Your task to perform on an android device: change keyboard looks Image 0: 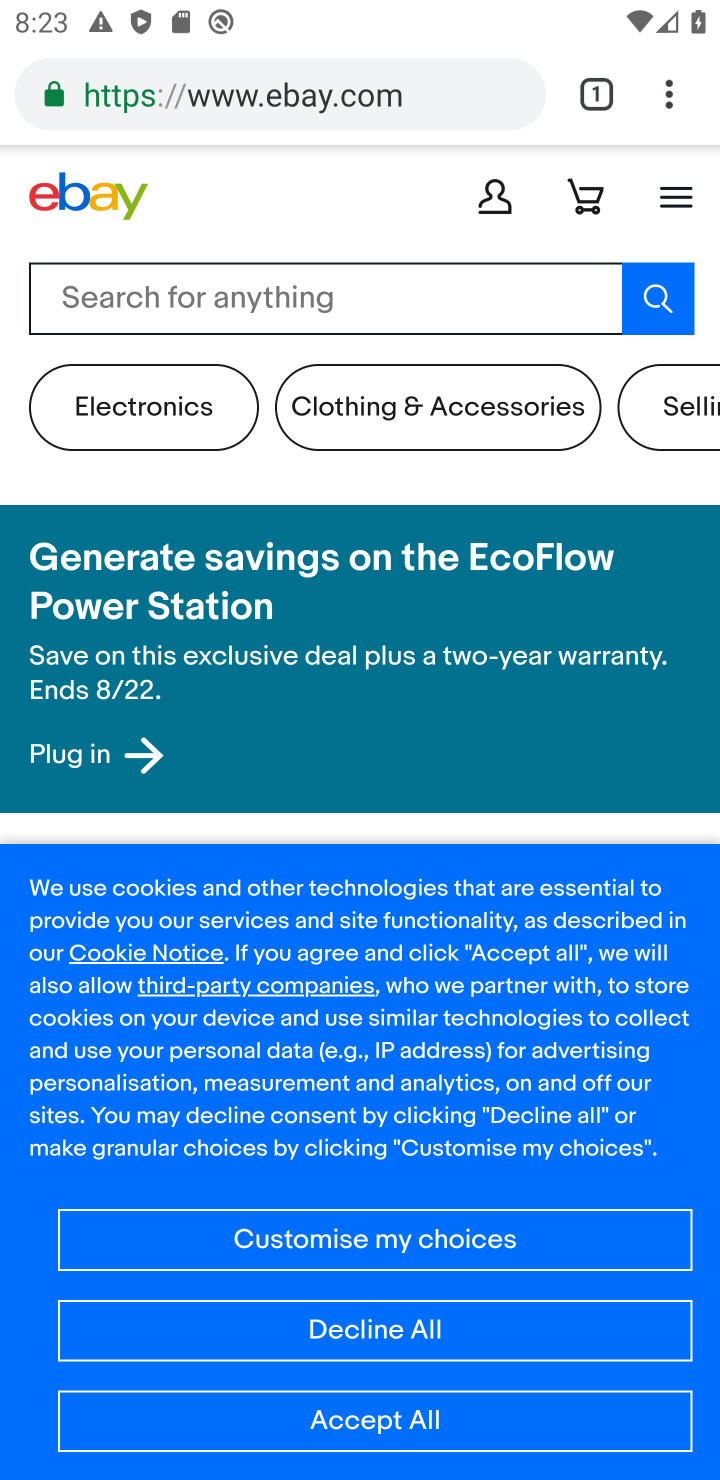
Step 0: press home button
Your task to perform on an android device: change keyboard looks Image 1: 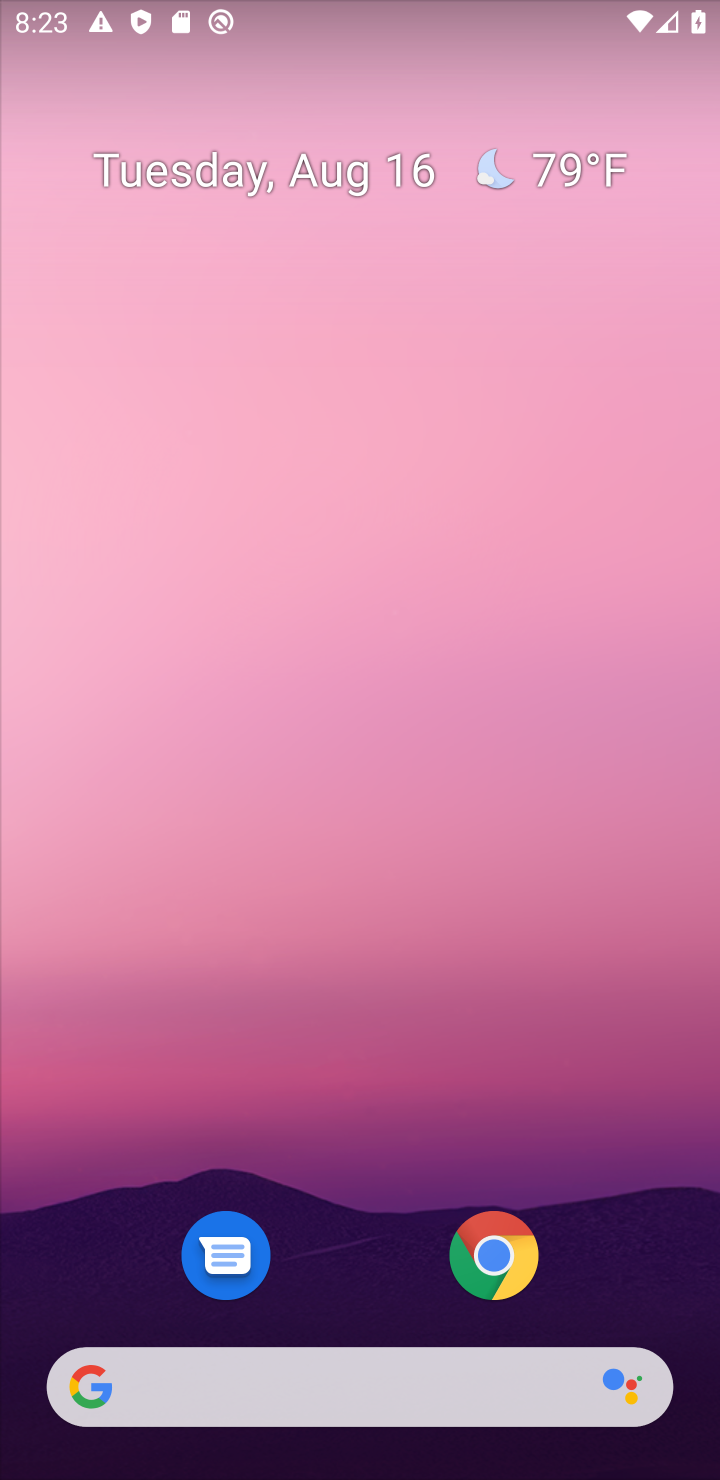
Step 1: drag from (391, 1388) to (442, 458)
Your task to perform on an android device: change keyboard looks Image 2: 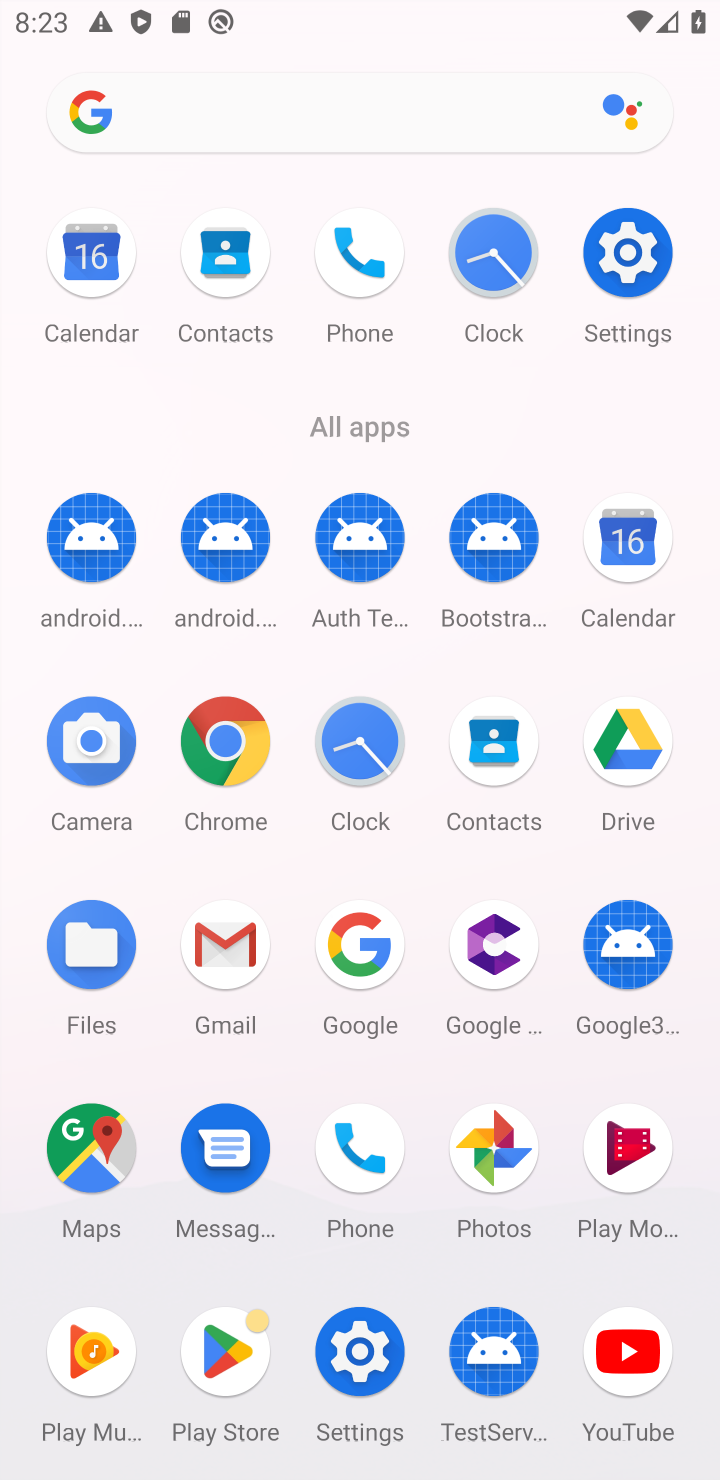
Step 2: click (634, 270)
Your task to perform on an android device: change keyboard looks Image 3: 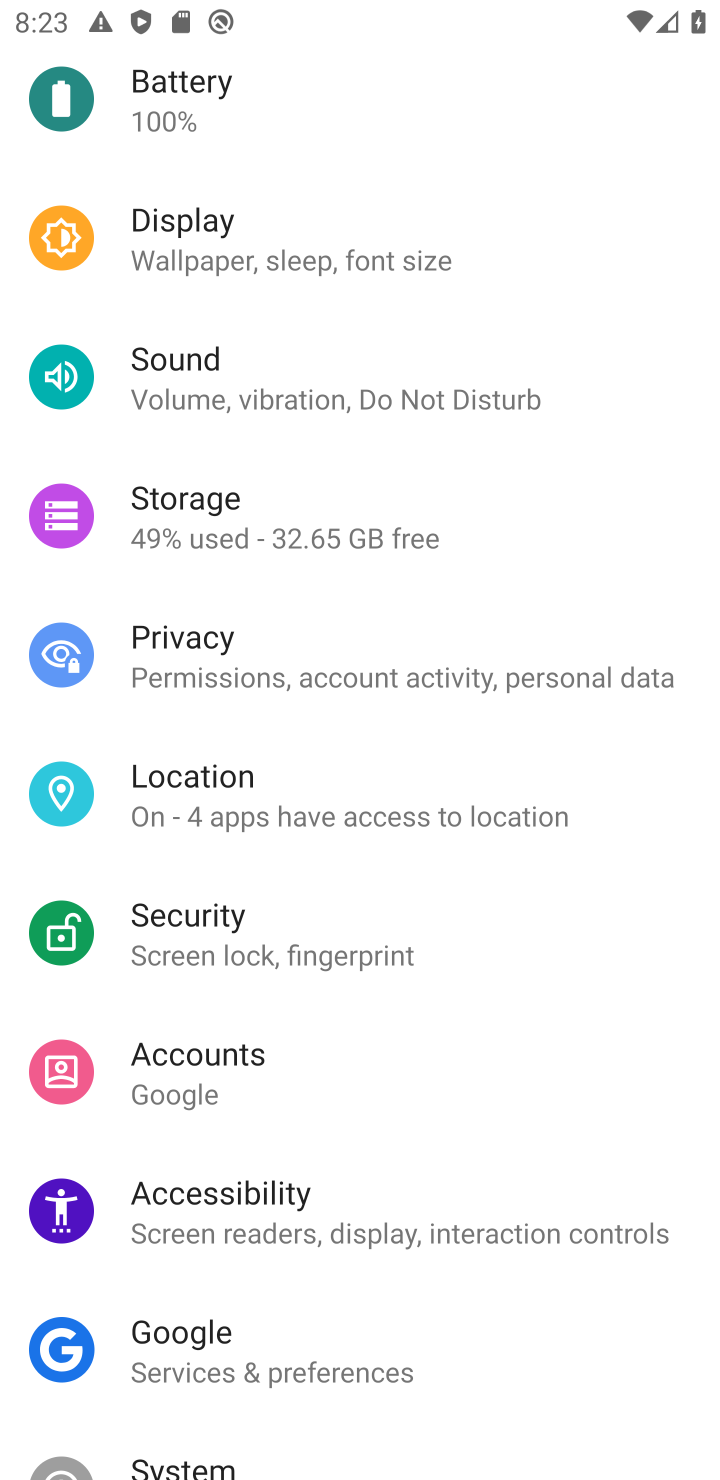
Step 3: drag from (364, 1361) to (411, 592)
Your task to perform on an android device: change keyboard looks Image 4: 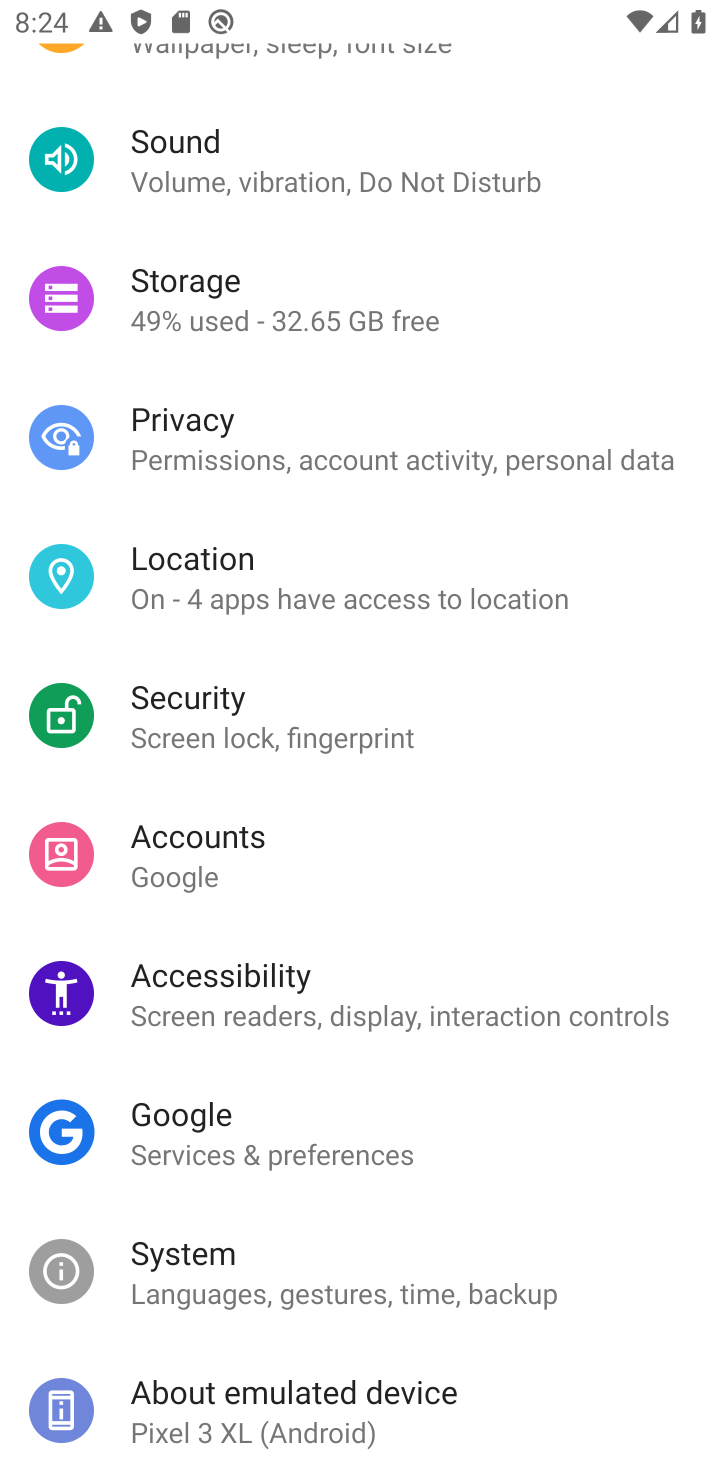
Step 4: click (273, 1264)
Your task to perform on an android device: change keyboard looks Image 5: 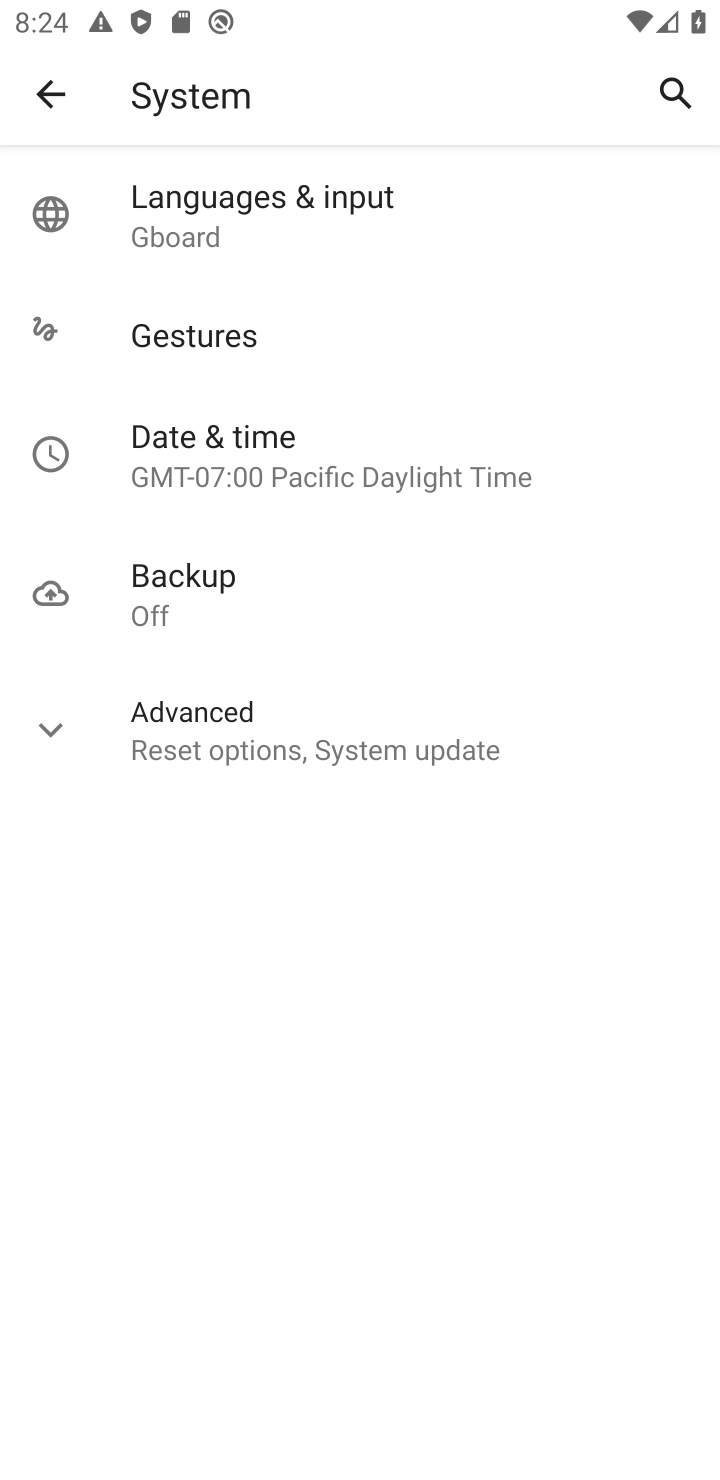
Step 5: click (275, 229)
Your task to perform on an android device: change keyboard looks Image 6: 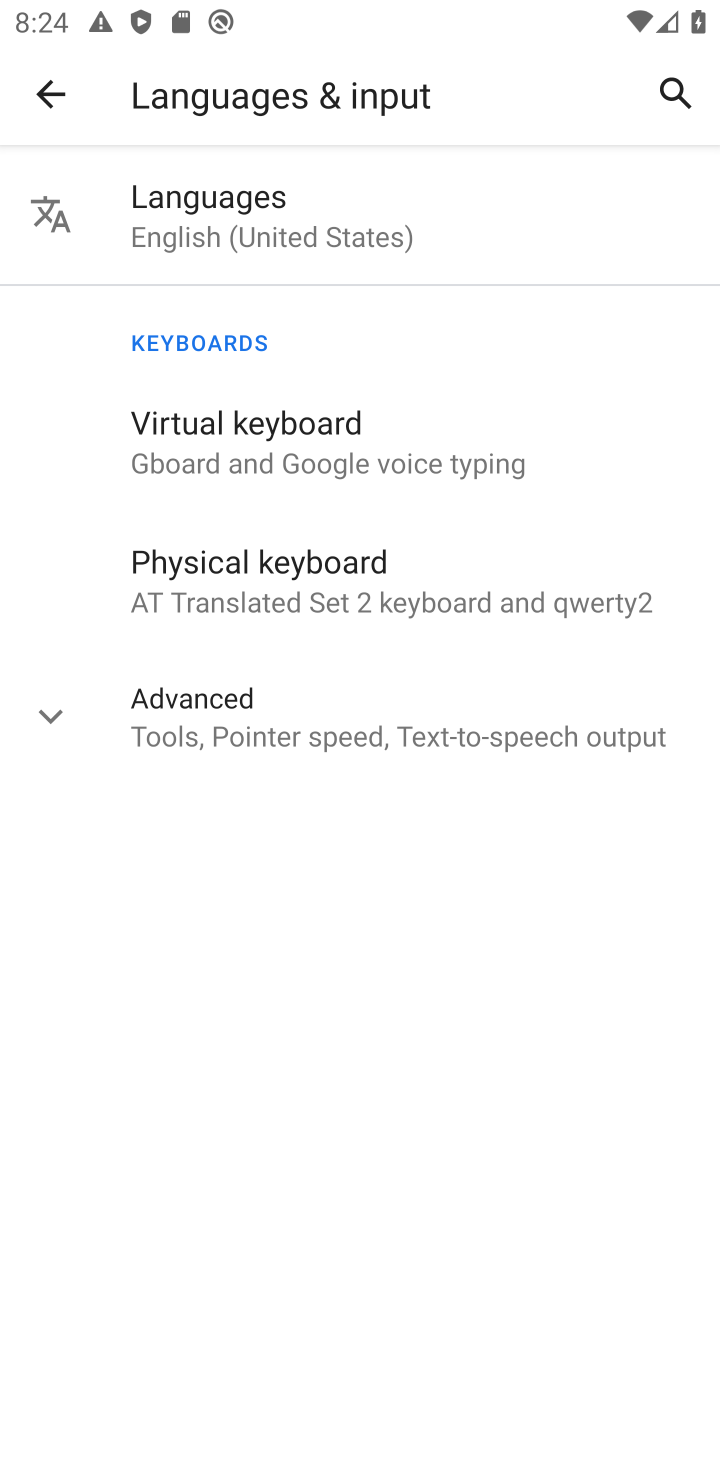
Step 6: click (251, 426)
Your task to perform on an android device: change keyboard looks Image 7: 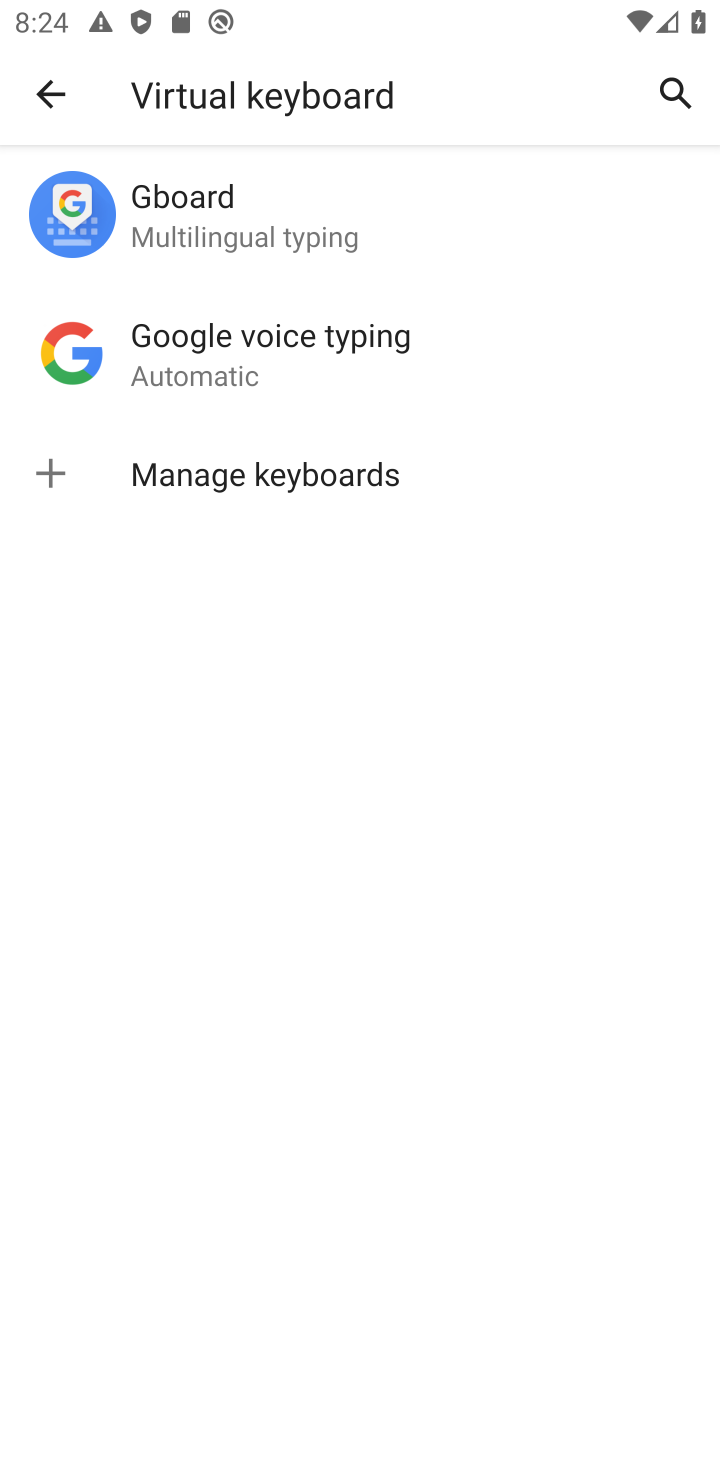
Step 7: click (196, 244)
Your task to perform on an android device: change keyboard looks Image 8: 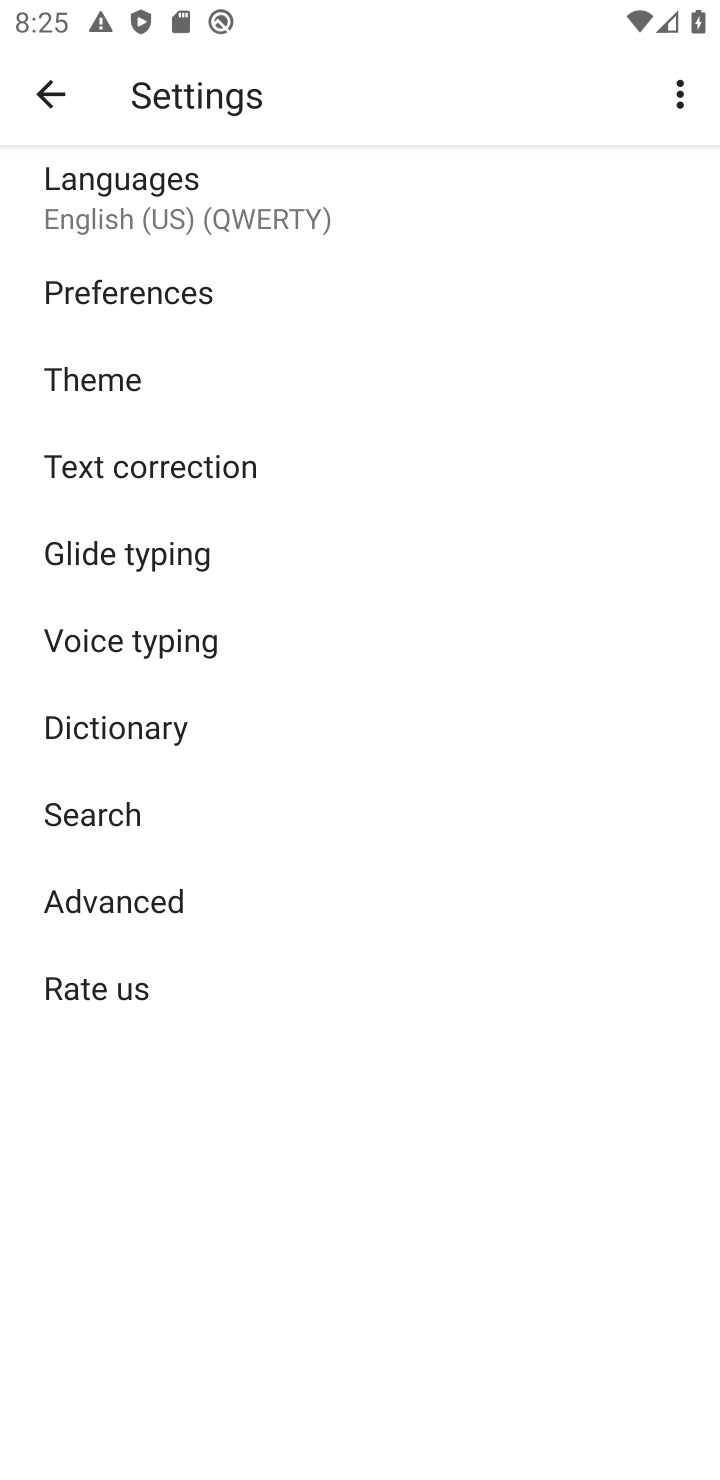
Step 8: click (95, 383)
Your task to perform on an android device: change keyboard looks Image 9: 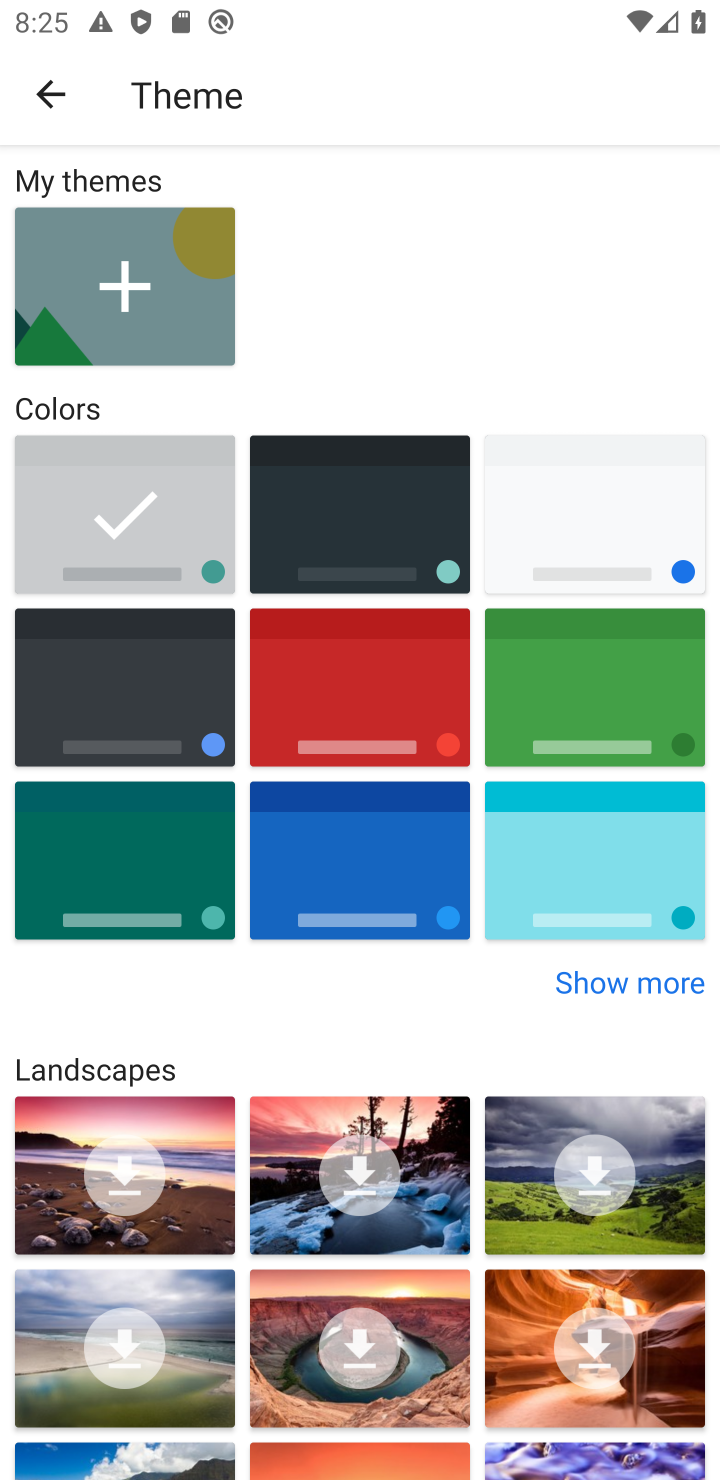
Step 9: click (144, 885)
Your task to perform on an android device: change keyboard looks Image 10: 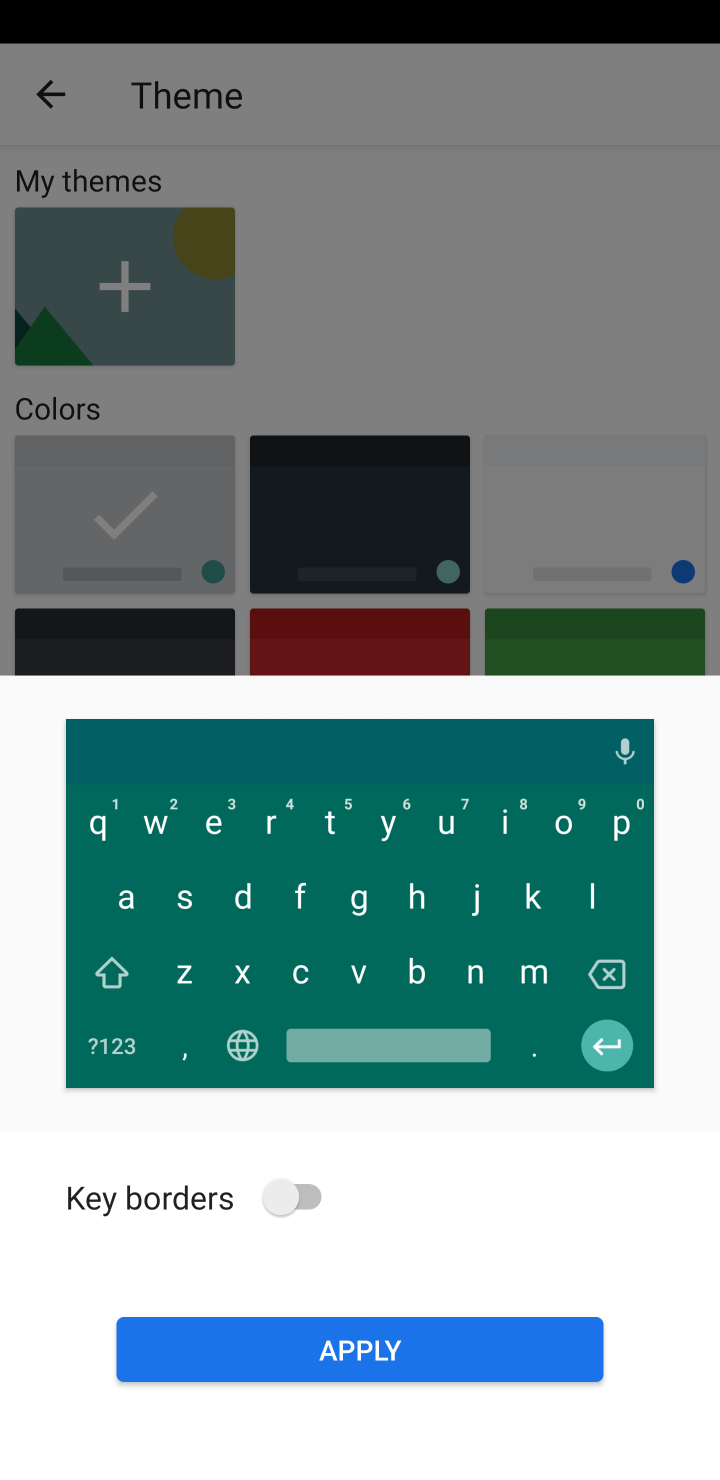
Step 10: click (283, 1198)
Your task to perform on an android device: change keyboard looks Image 11: 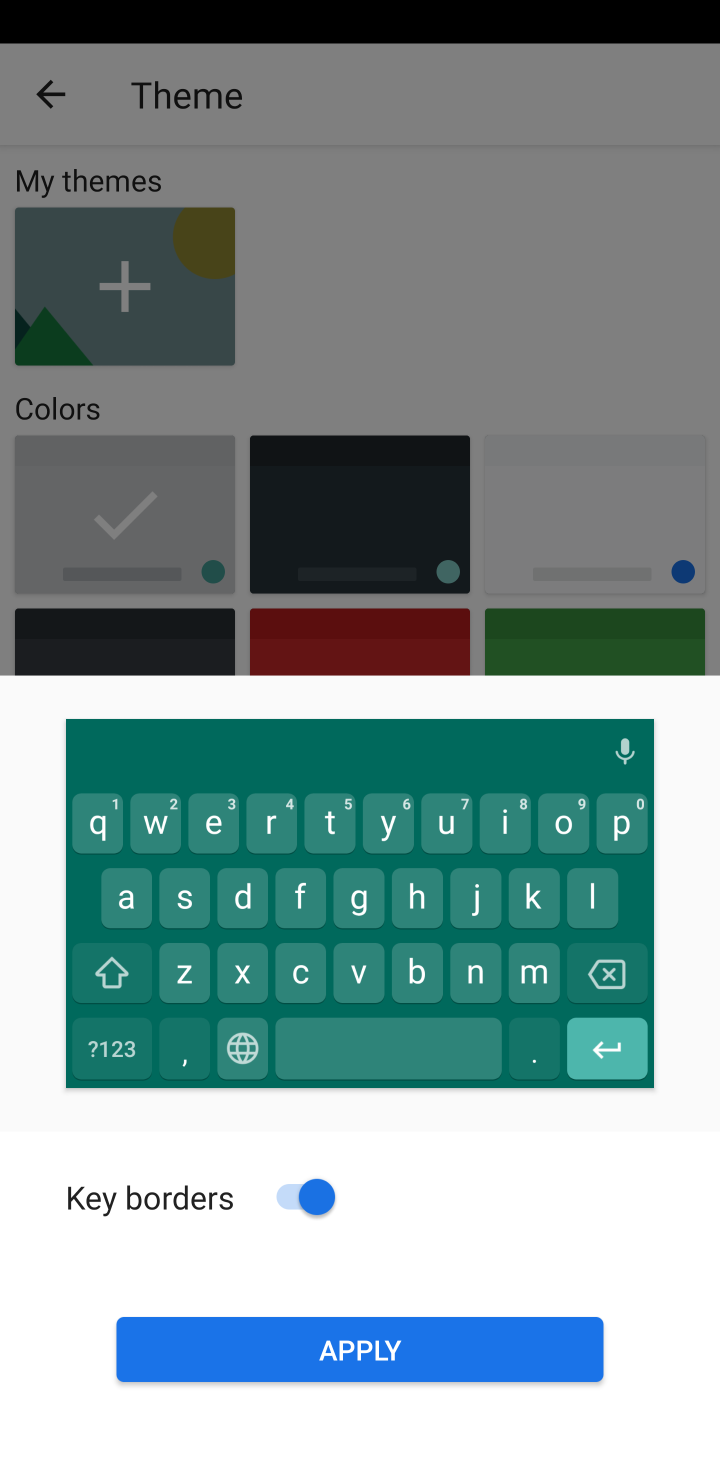
Step 11: click (350, 1340)
Your task to perform on an android device: change keyboard looks Image 12: 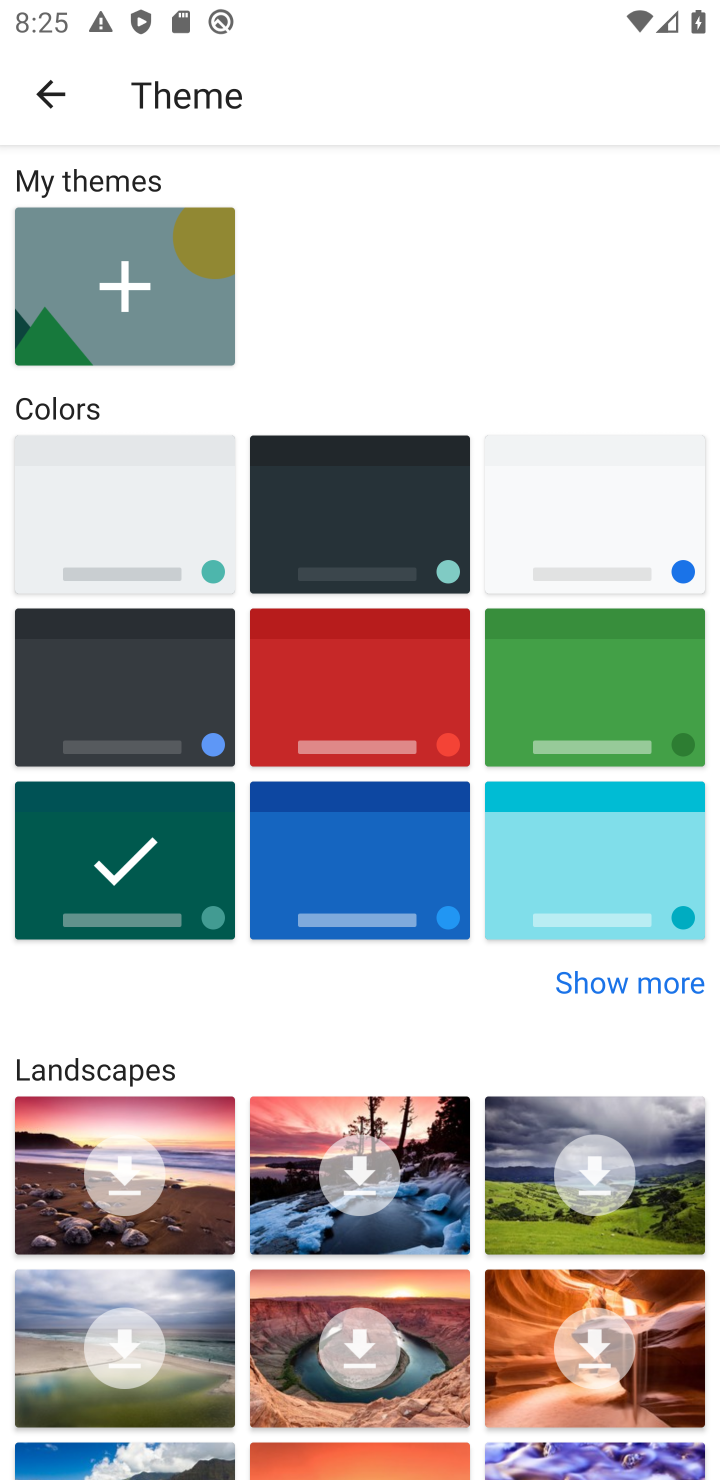
Step 12: task complete